Your task to perform on an android device: Open Maps and search for coffee Image 0: 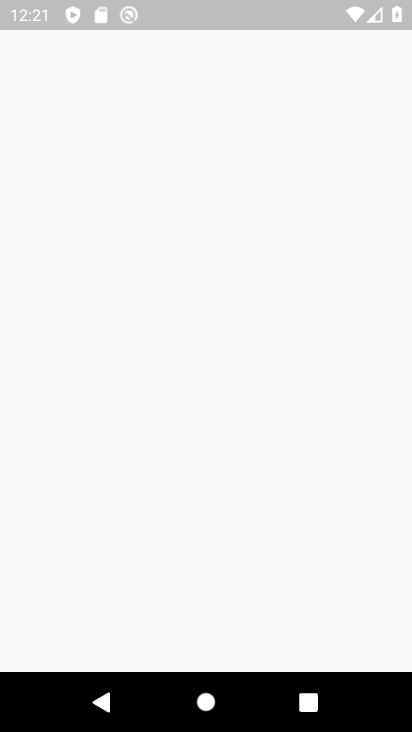
Step 0: press home button
Your task to perform on an android device: Open Maps and search for coffee Image 1: 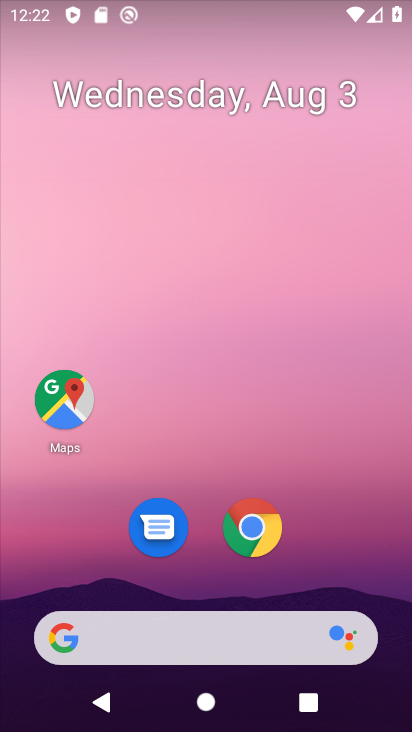
Step 1: click (65, 413)
Your task to perform on an android device: Open Maps and search for coffee Image 2: 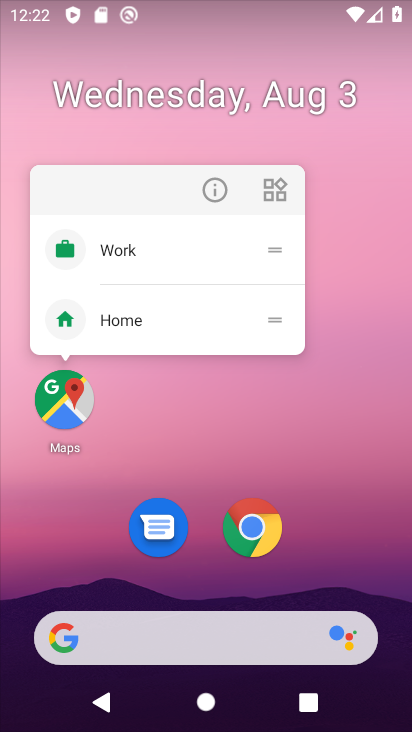
Step 2: click (63, 403)
Your task to perform on an android device: Open Maps and search for coffee Image 3: 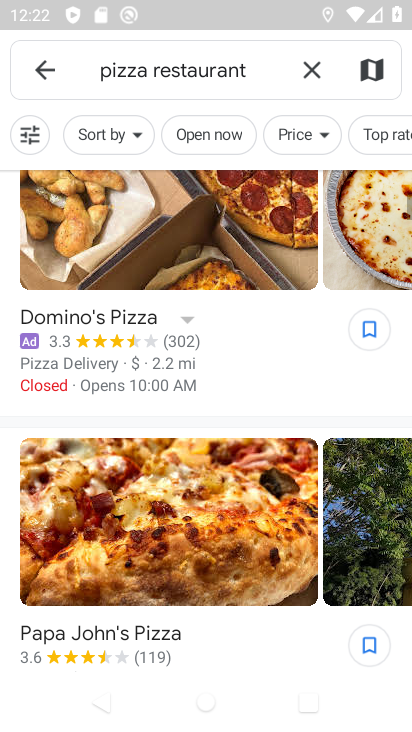
Step 3: click (310, 70)
Your task to perform on an android device: Open Maps and search for coffee Image 4: 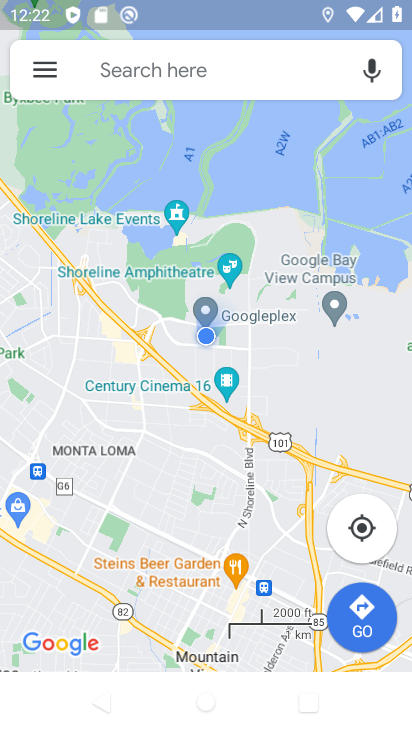
Step 4: click (172, 64)
Your task to perform on an android device: Open Maps and search for coffee Image 5: 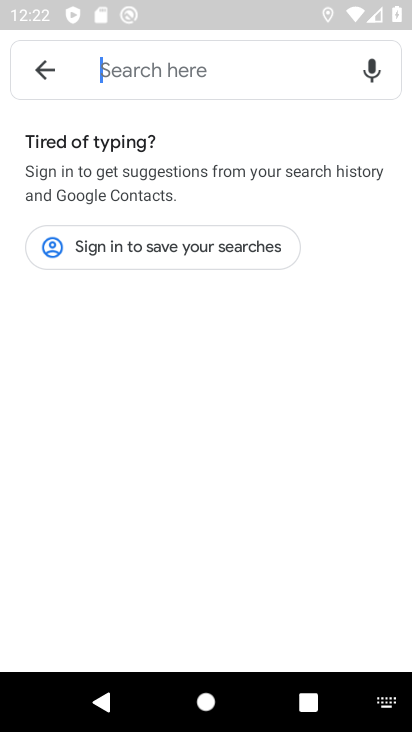
Step 5: click (184, 236)
Your task to perform on an android device: Open Maps and search for coffee Image 6: 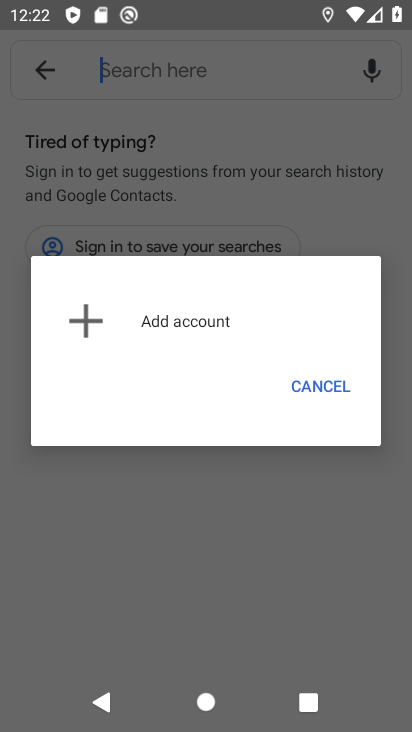
Step 6: click (328, 391)
Your task to perform on an android device: Open Maps and search for coffee Image 7: 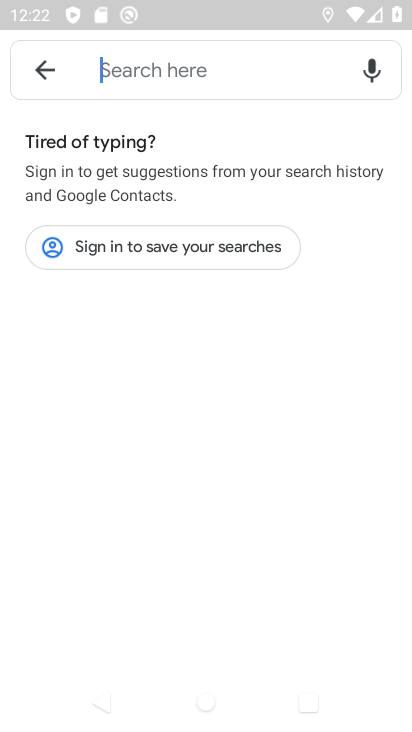
Step 7: type "coffee"
Your task to perform on an android device: Open Maps and search for coffee Image 8: 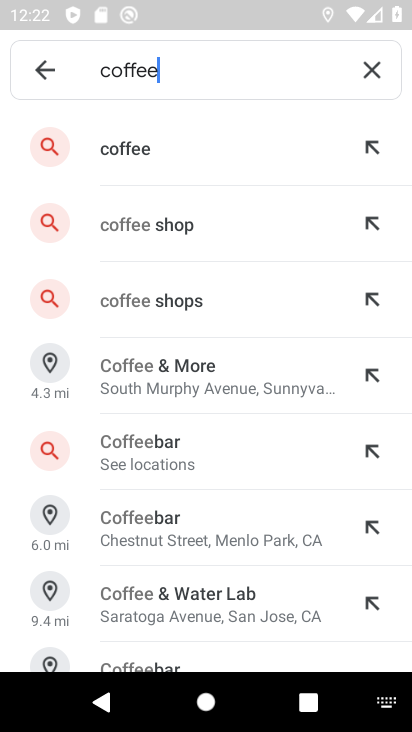
Step 8: click (137, 153)
Your task to perform on an android device: Open Maps and search for coffee Image 9: 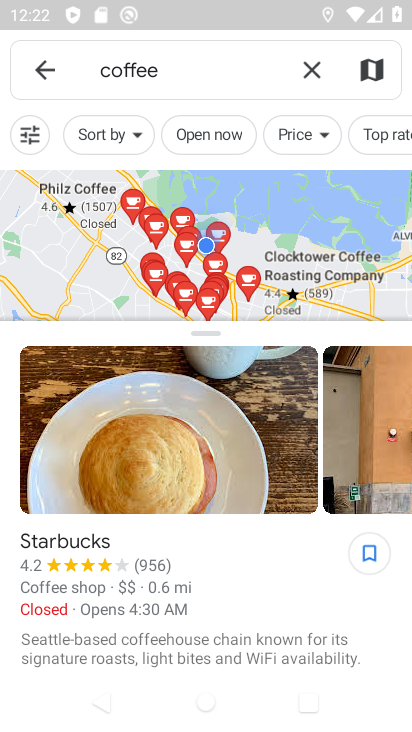
Step 9: task complete